Your task to perform on an android device: open wifi settings Image 0: 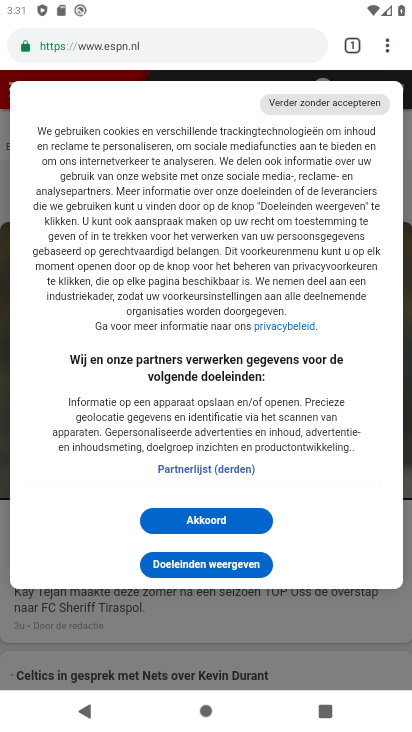
Step 0: press home button
Your task to perform on an android device: open wifi settings Image 1: 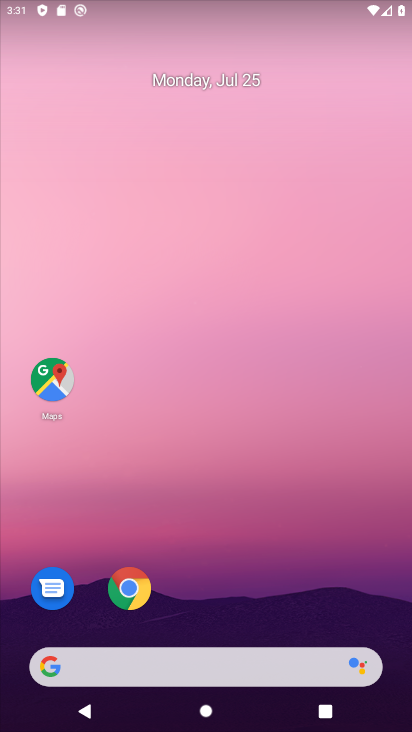
Step 1: drag from (245, 1) to (213, 457)
Your task to perform on an android device: open wifi settings Image 2: 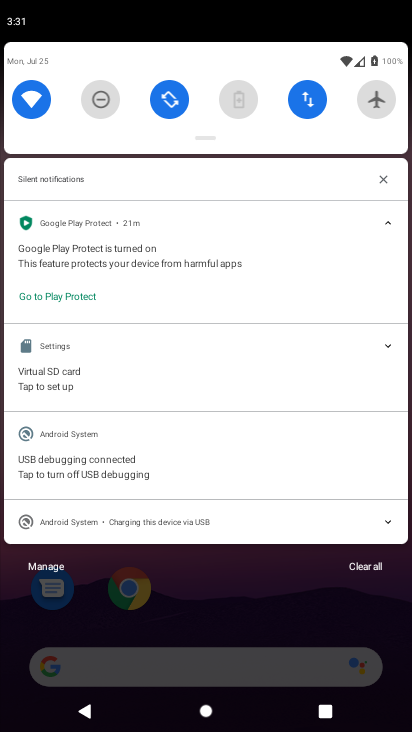
Step 2: click (23, 103)
Your task to perform on an android device: open wifi settings Image 3: 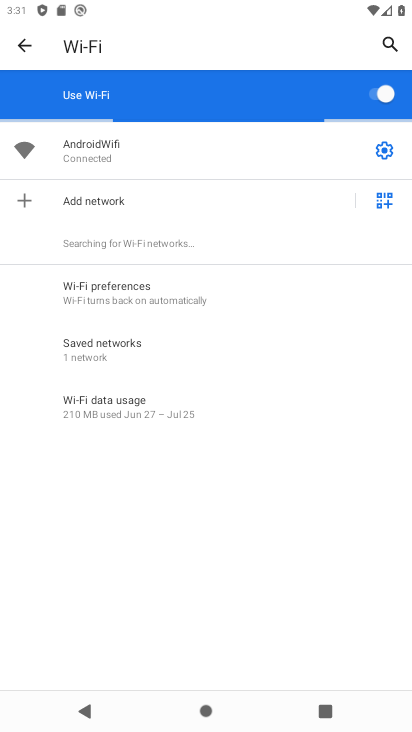
Step 3: task complete